Your task to perform on an android device: turn notification dots off Image 0: 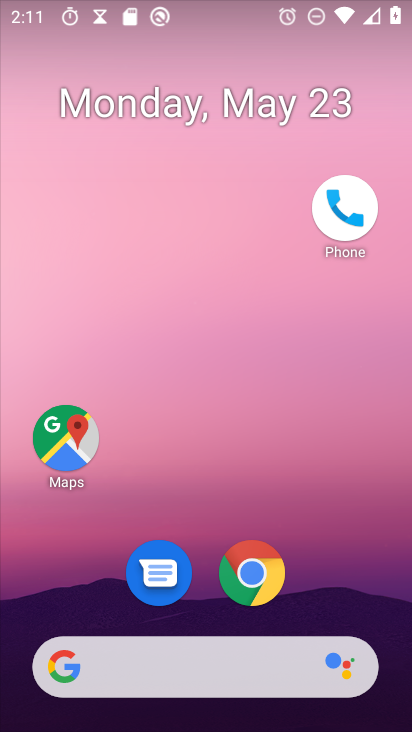
Step 0: press home button
Your task to perform on an android device: turn notification dots off Image 1: 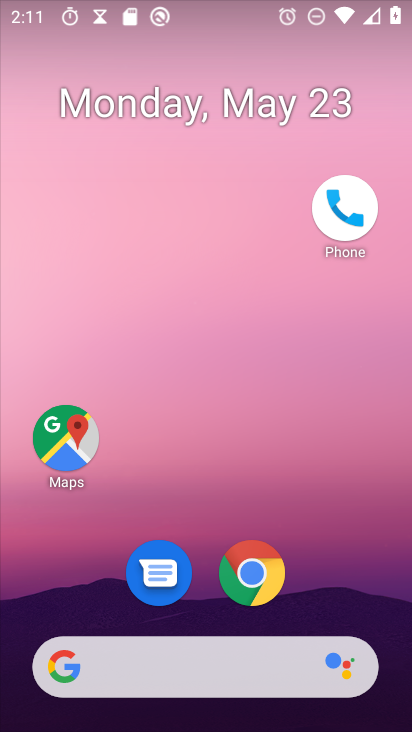
Step 1: drag from (139, 671) to (258, 42)
Your task to perform on an android device: turn notification dots off Image 2: 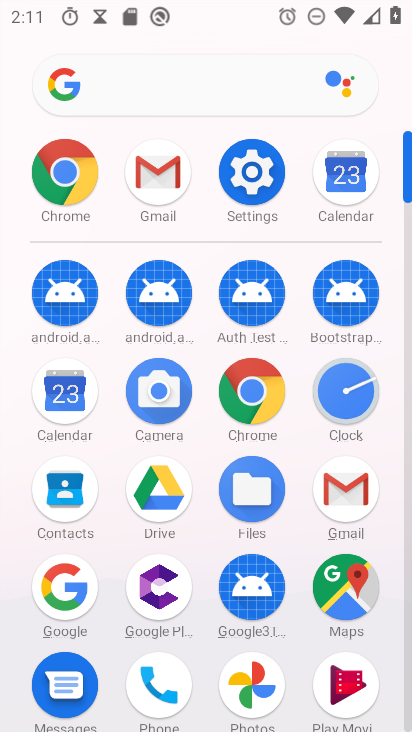
Step 2: click (253, 176)
Your task to perform on an android device: turn notification dots off Image 3: 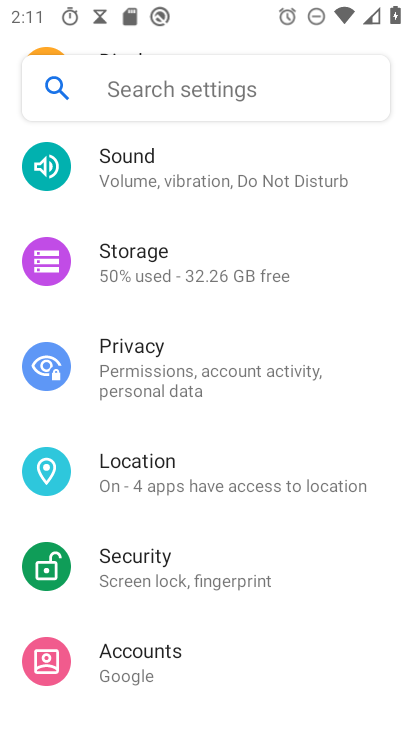
Step 3: drag from (292, 149) to (270, 644)
Your task to perform on an android device: turn notification dots off Image 4: 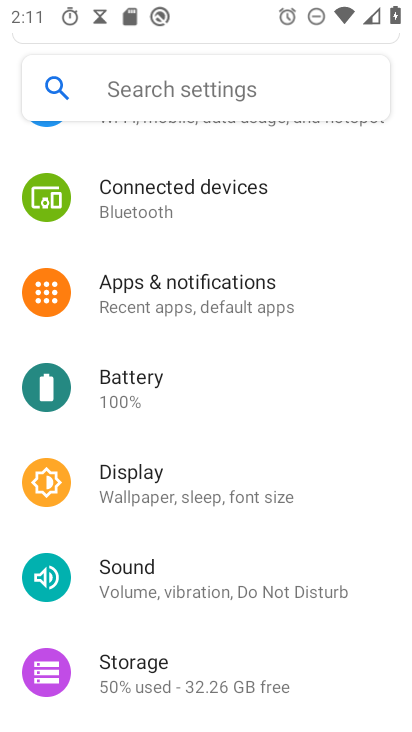
Step 4: click (223, 301)
Your task to perform on an android device: turn notification dots off Image 5: 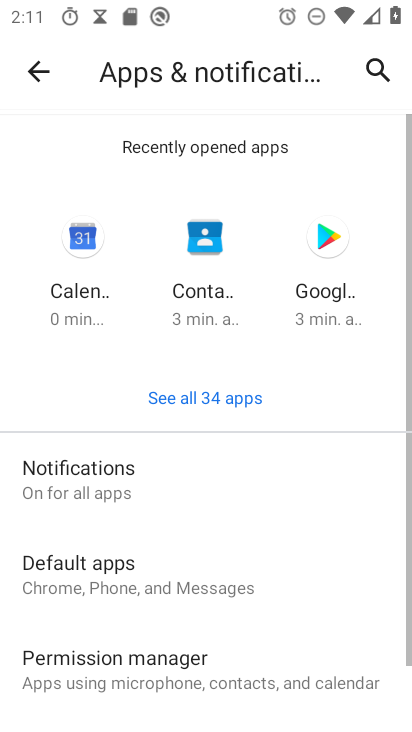
Step 5: click (53, 482)
Your task to perform on an android device: turn notification dots off Image 6: 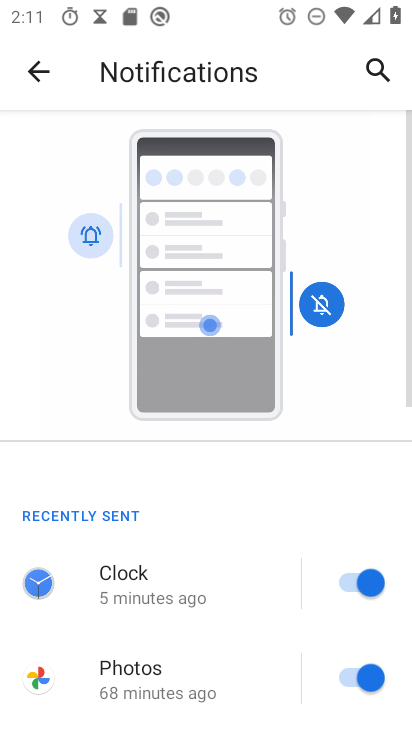
Step 6: drag from (233, 618) to (291, 103)
Your task to perform on an android device: turn notification dots off Image 7: 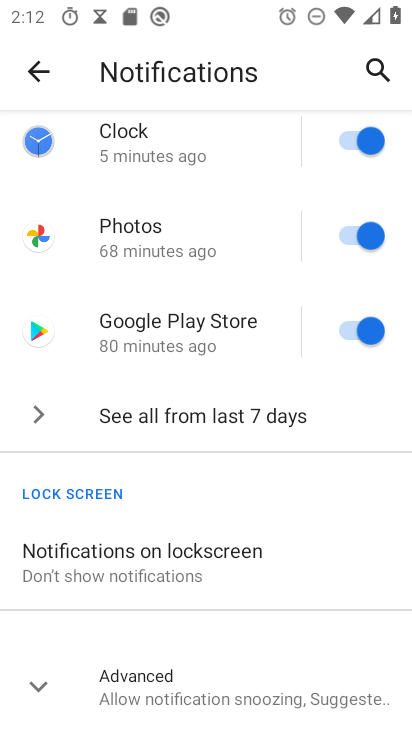
Step 7: click (188, 689)
Your task to perform on an android device: turn notification dots off Image 8: 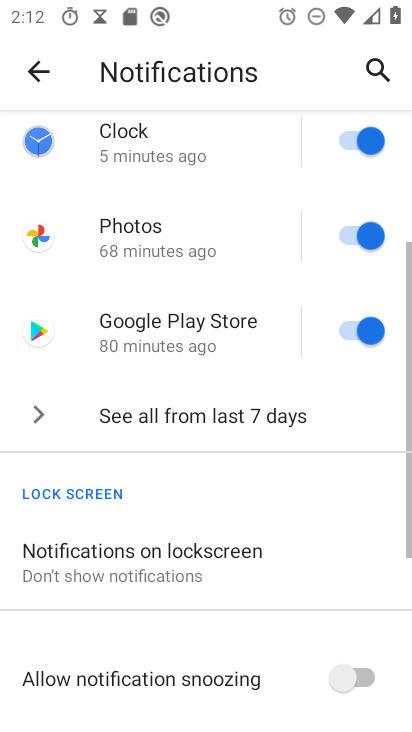
Step 8: drag from (237, 641) to (338, 44)
Your task to perform on an android device: turn notification dots off Image 9: 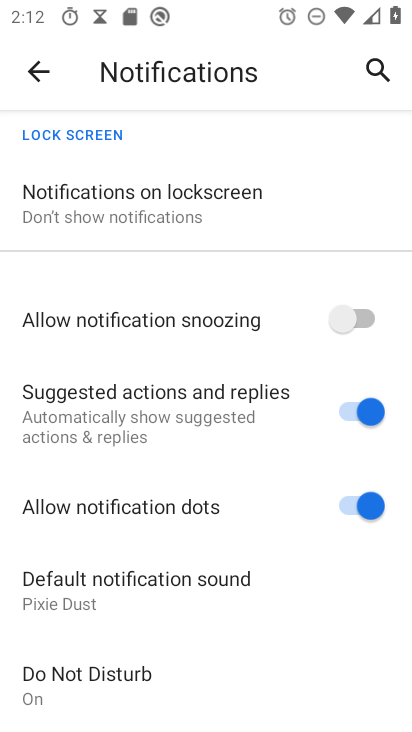
Step 9: click (351, 513)
Your task to perform on an android device: turn notification dots off Image 10: 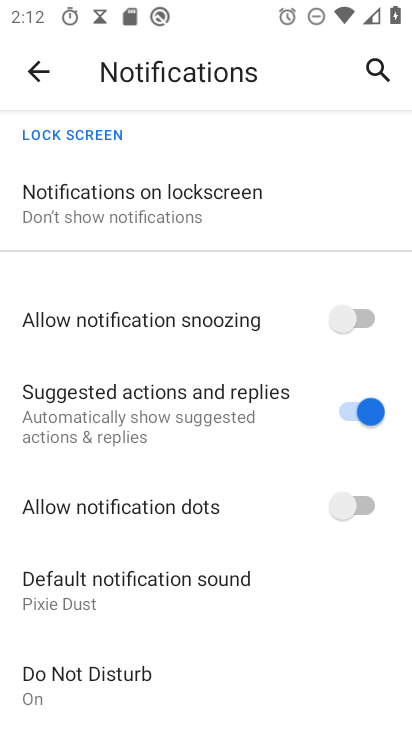
Step 10: task complete